Your task to perform on an android device: search for starred emails in the gmail app Image 0: 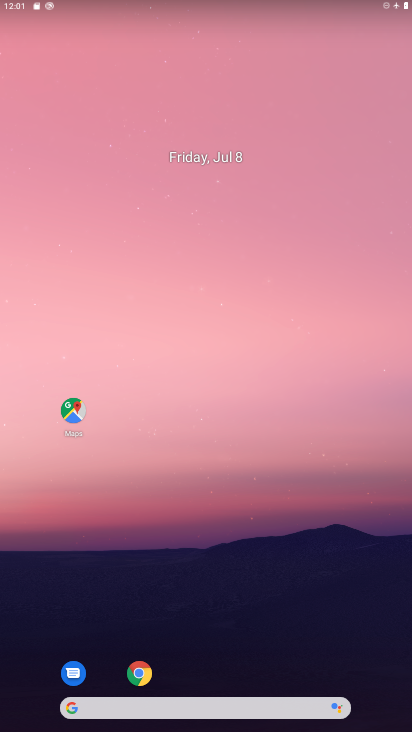
Step 0: drag from (213, 572) to (223, 338)
Your task to perform on an android device: search for starred emails in the gmail app Image 1: 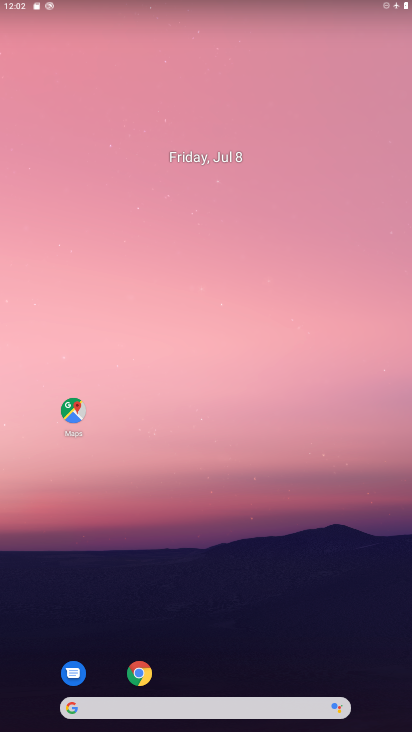
Step 1: drag from (221, 565) to (201, 139)
Your task to perform on an android device: search for starred emails in the gmail app Image 2: 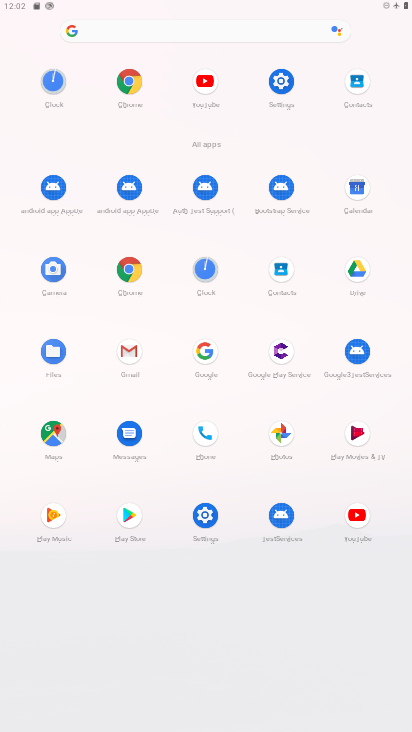
Step 2: click (133, 353)
Your task to perform on an android device: search for starred emails in the gmail app Image 3: 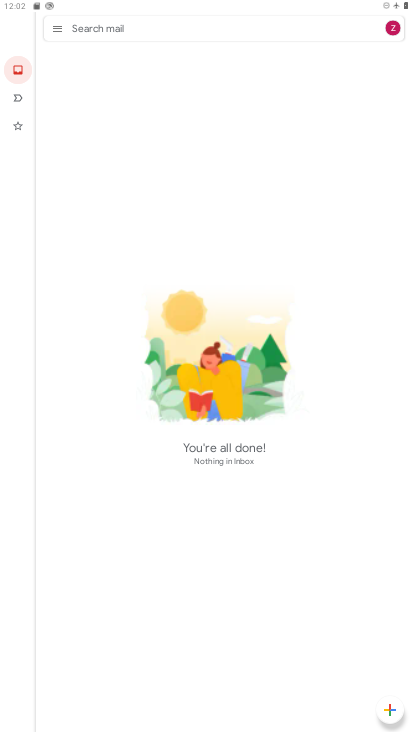
Step 3: click (14, 129)
Your task to perform on an android device: search for starred emails in the gmail app Image 4: 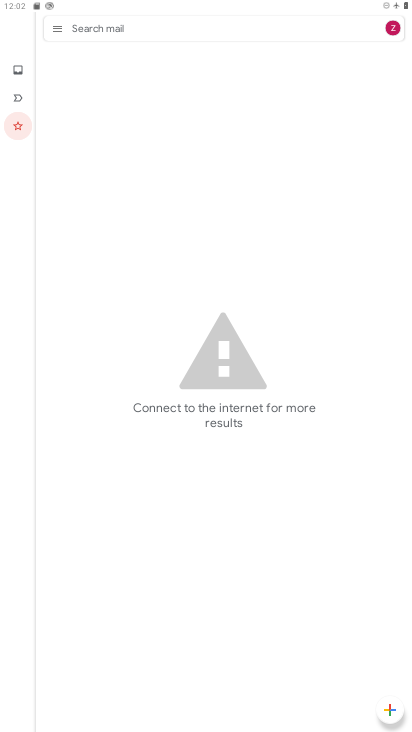
Step 4: task complete